Your task to perform on an android device: Do I have any events tomorrow? Image 0: 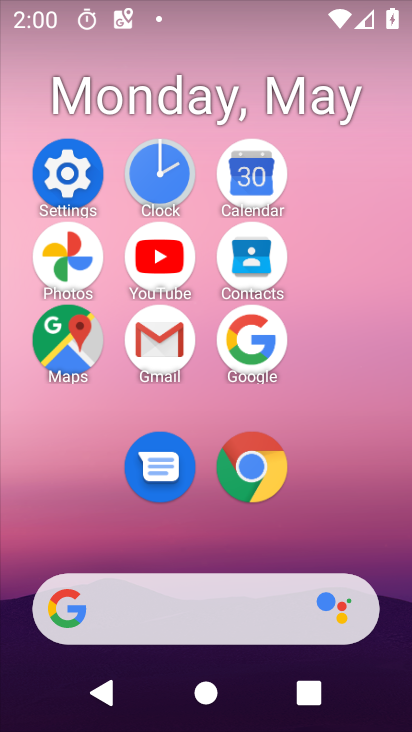
Step 0: click (245, 174)
Your task to perform on an android device: Do I have any events tomorrow? Image 1: 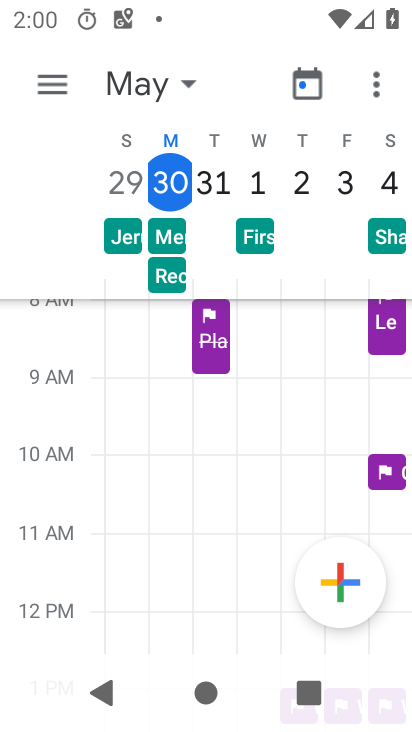
Step 1: click (226, 178)
Your task to perform on an android device: Do I have any events tomorrow? Image 2: 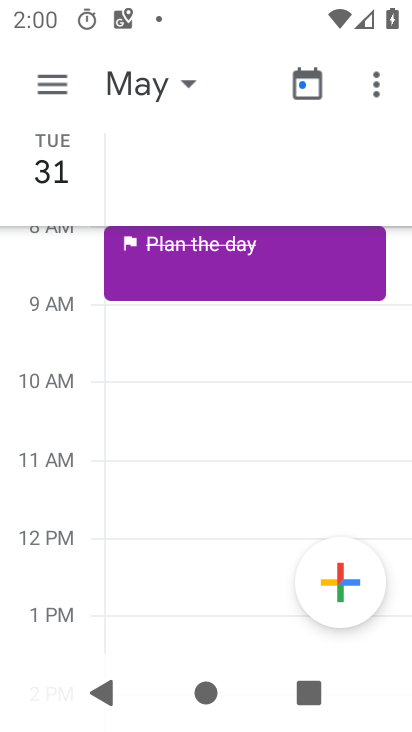
Step 2: task complete